Your task to perform on an android device: turn off wifi Image 0: 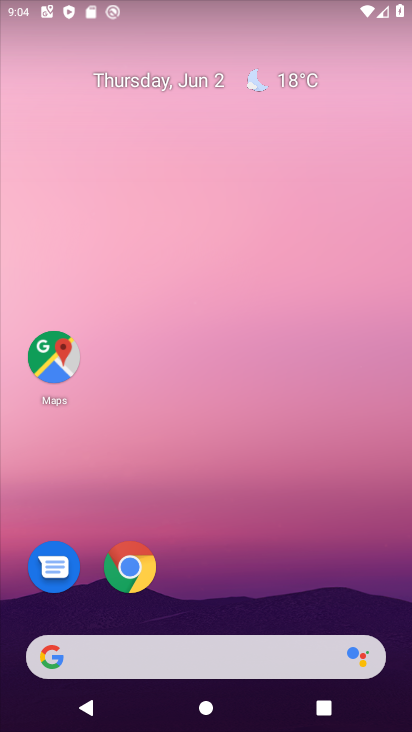
Step 0: press home button
Your task to perform on an android device: turn off wifi Image 1: 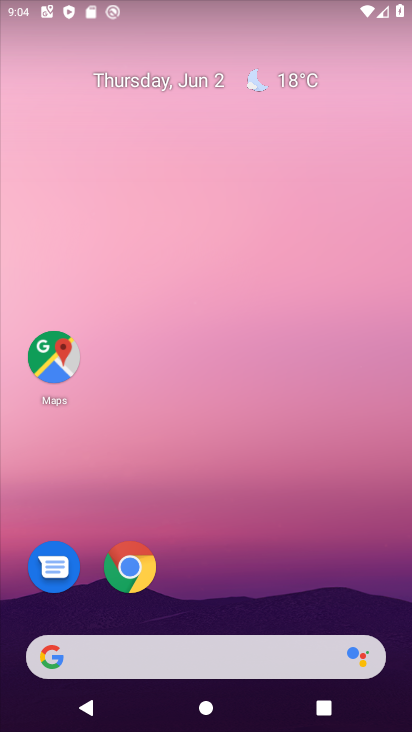
Step 1: press home button
Your task to perform on an android device: turn off wifi Image 2: 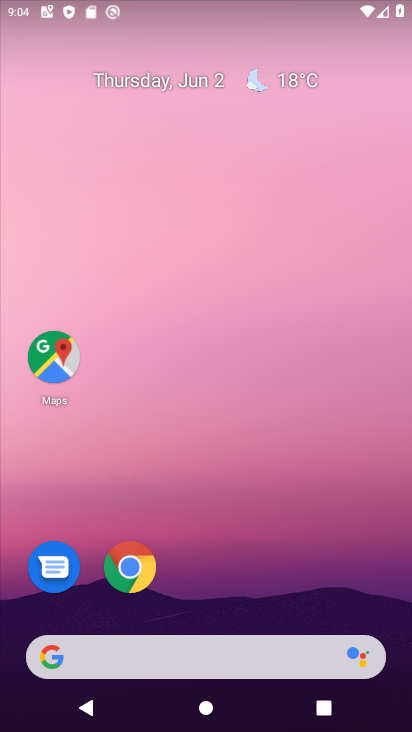
Step 2: drag from (192, 4) to (187, 567)
Your task to perform on an android device: turn off wifi Image 3: 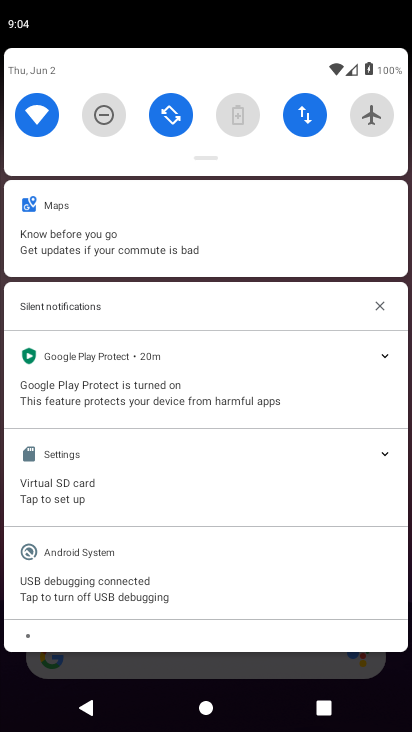
Step 3: click (32, 114)
Your task to perform on an android device: turn off wifi Image 4: 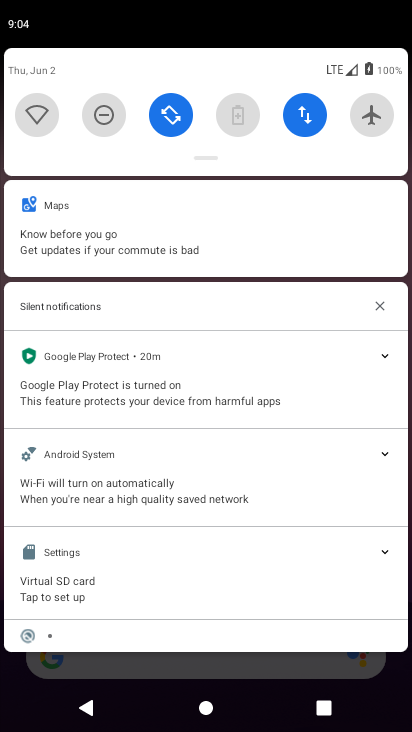
Step 4: task complete